Your task to perform on an android device: change your default location settings in chrome Image 0: 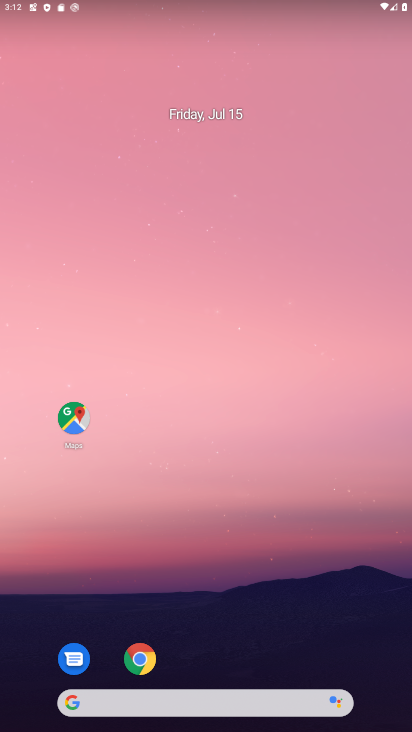
Step 0: drag from (105, 535) to (273, 104)
Your task to perform on an android device: change your default location settings in chrome Image 1: 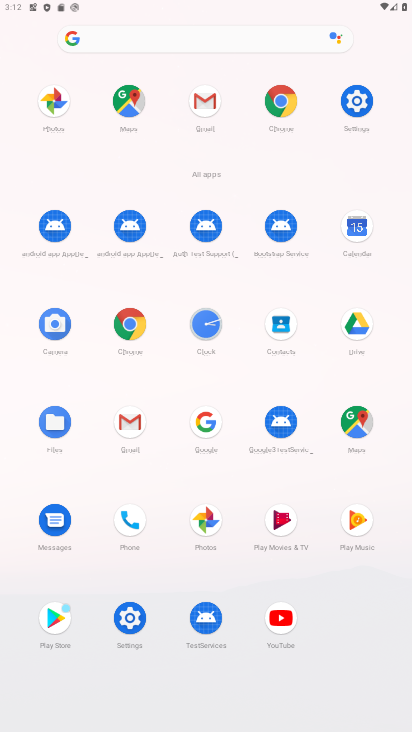
Step 1: click (139, 420)
Your task to perform on an android device: change your default location settings in chrome Image 2: 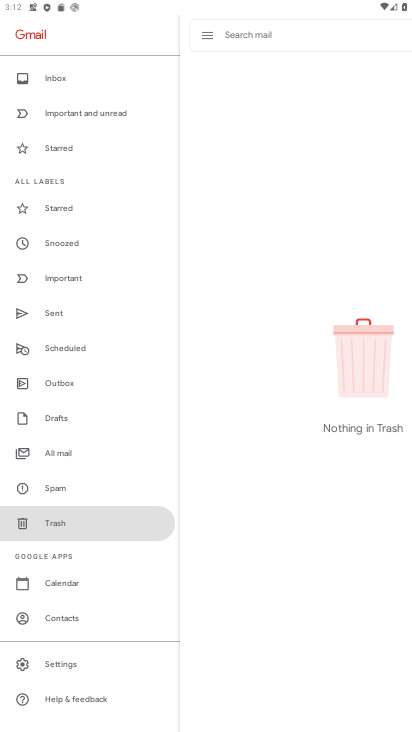
Step 2: click (88, 446)
Your task to perform on an android device: change your default location settings in chrome Image 3: 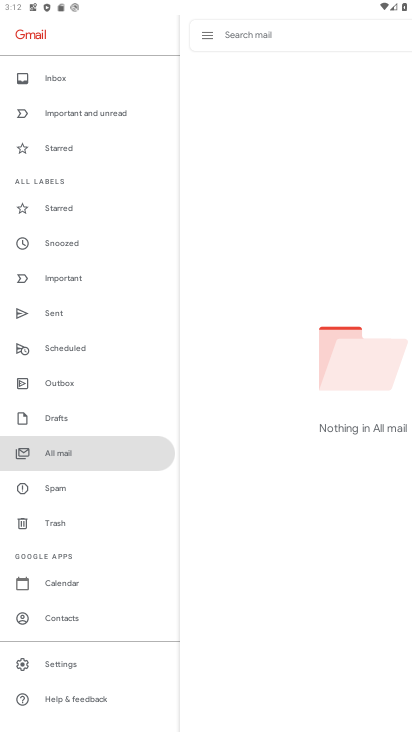
Step 3: task complete